Your task to perform on an android device: Go to sound settings Image 0: 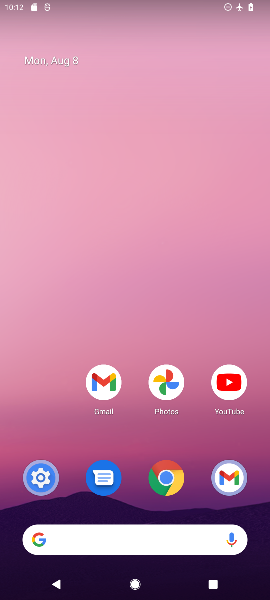
Step 0: drag from (143, 508) to (135, 90)
Your task to perform on an android device: Go to sound settings Image 1: 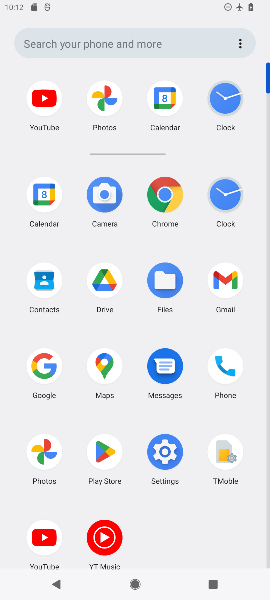
Step 1: click (158, 457)
Your task to perform on an android device: Go to sound settings Image 2: 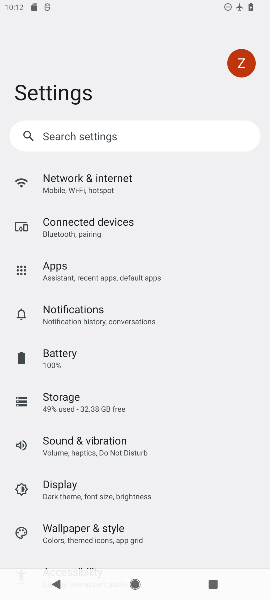
Step 2: click (74, 448)
Your task to perform on an android device: Go to sound settings Image 3: 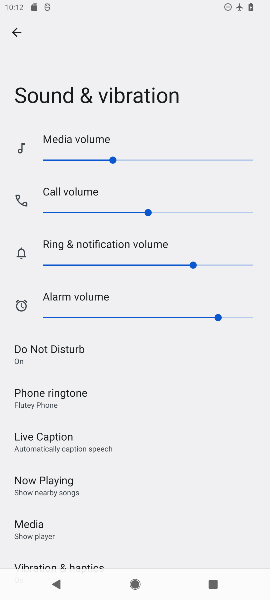
Step 3: task complete